Your task to perform on an android device: turn on sleep mode Image 0: 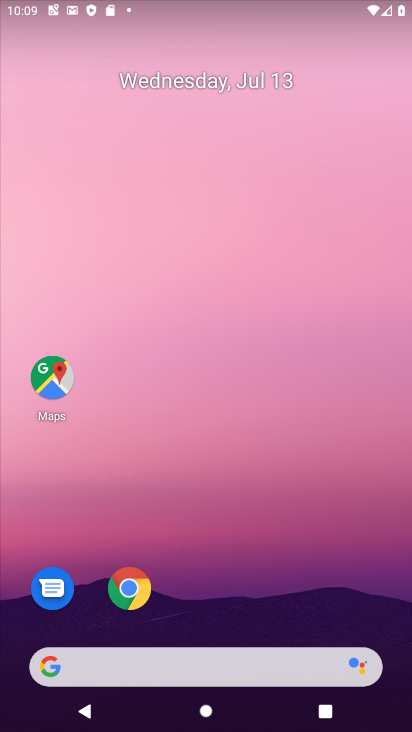
Step 0: drag from (238, 625) to (240, 177)
Your task to perform on an android device: turn on sleep mode Image 1: 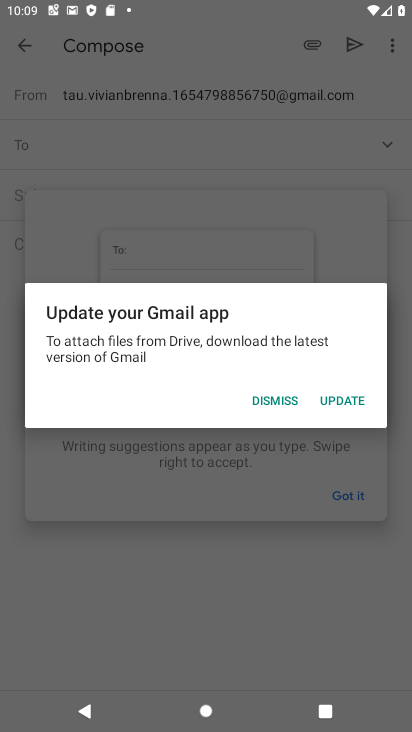
Step 1: click (261, 395)
Your task to perform on an android device: turn on sleep mode Image 2: 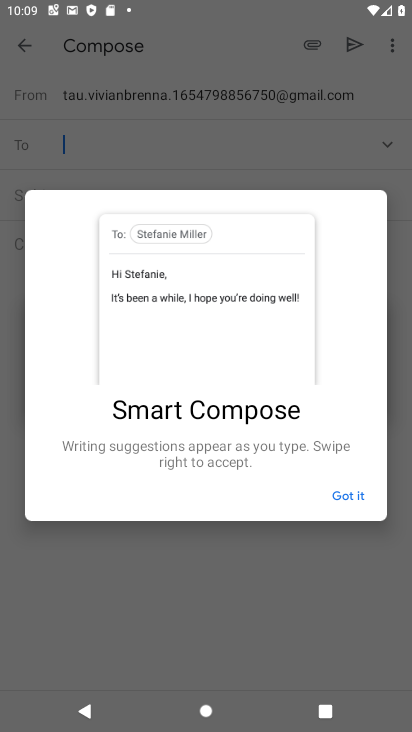
Step 2: press home button
Your task to perform on an android device: turn on sleep mode Image 3: 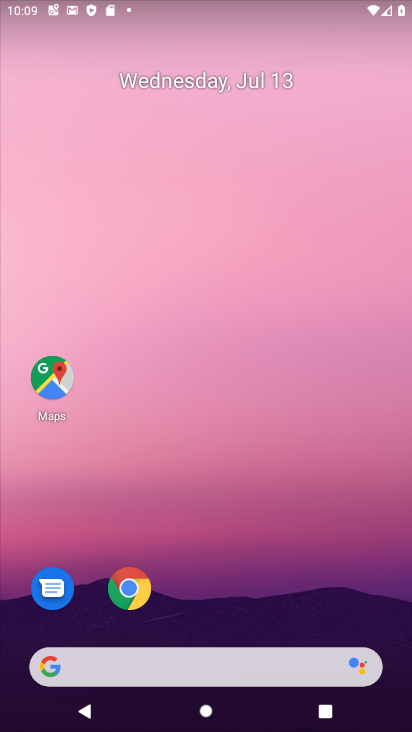
Step 3: drag from (224, 635) to (197, 168)
Your task to perform on an android device: turn on sleep mode Image 4: 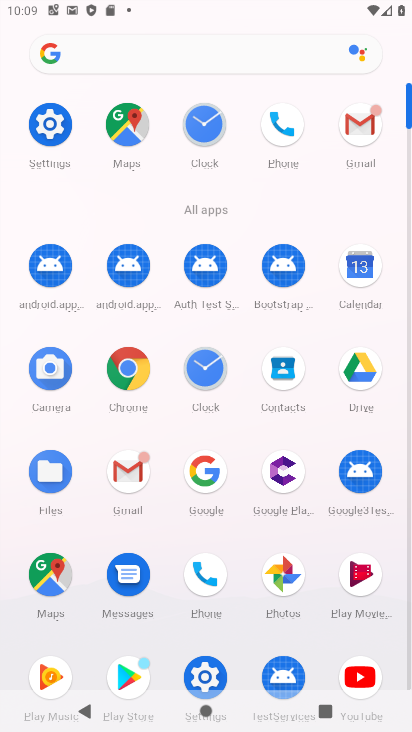
Step 4: click (67, 117)
Your task to perform on an android device: turn on sleep mode Image 5: 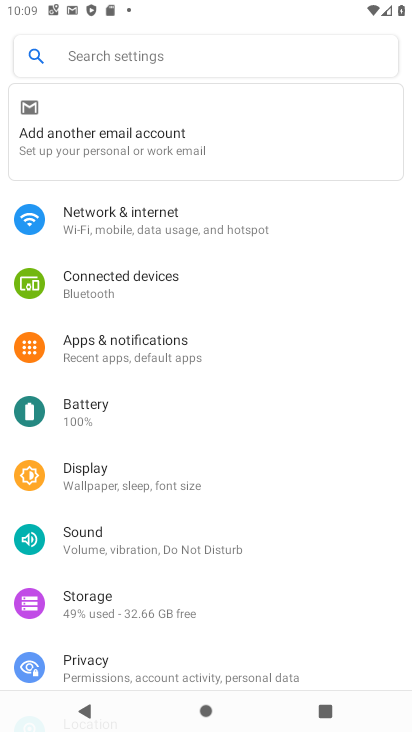
Step 5: task complete